Your task to perform on an android device: Open calendar and show me the third week of next month Image 0: 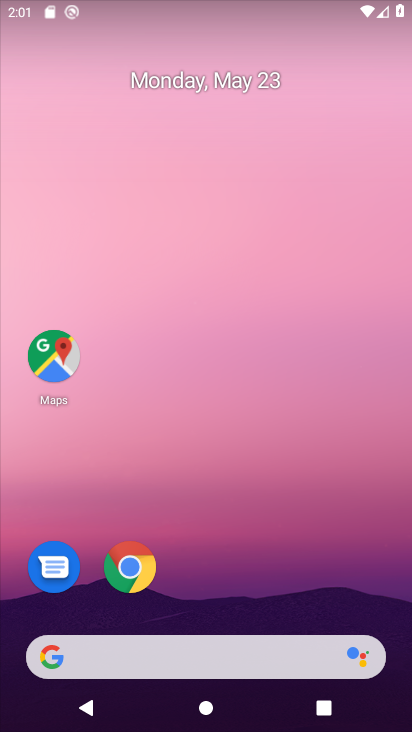
Step 0: drag from (209, 592) to (232, 149)
Your task to perform on an android device: Open calendar and show me the third week of next month Image 1: 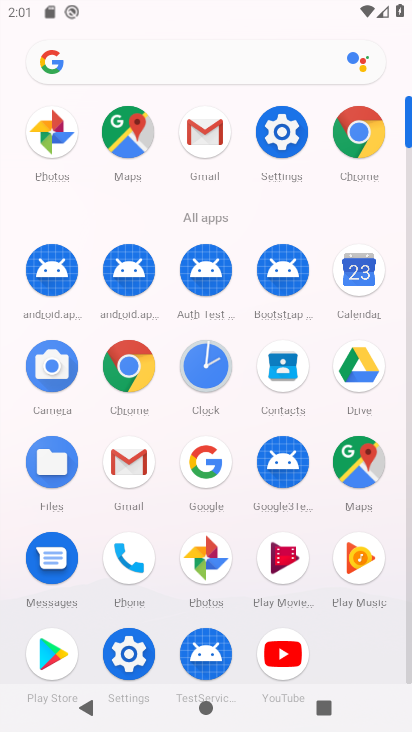
Step 1: click (342, 294)
Your task to perform on an android device: Open calendar and show me the third week of next month Image 2: 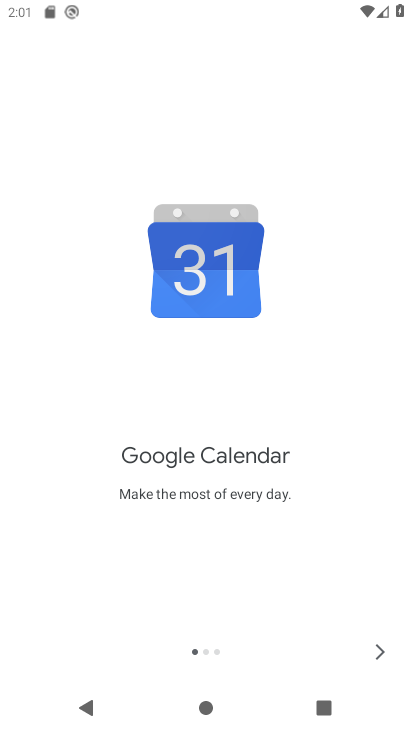
Step 2: click (374, 650)
Your task to perform on an android device: Open calendar and show me the third week of next month Image 3: 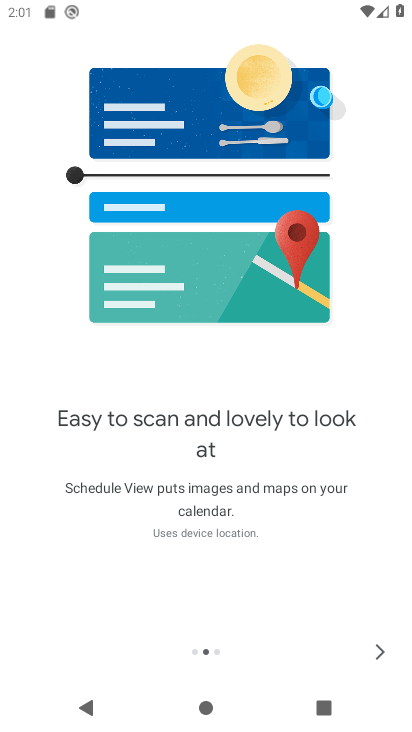
Step 3: click (374, 650)
Your task to perform on an android device: Open calendar and show me the third week of next month Image 4: 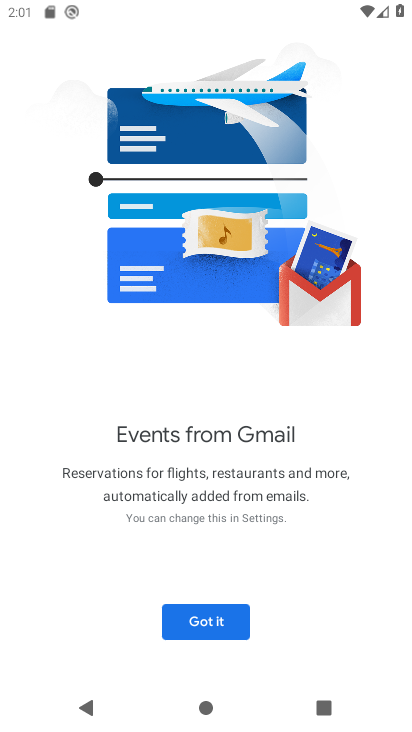
Step 4: click (241, 620)
Your task to perform on an android device: Open calendar and show me the third week of next month Image 5: 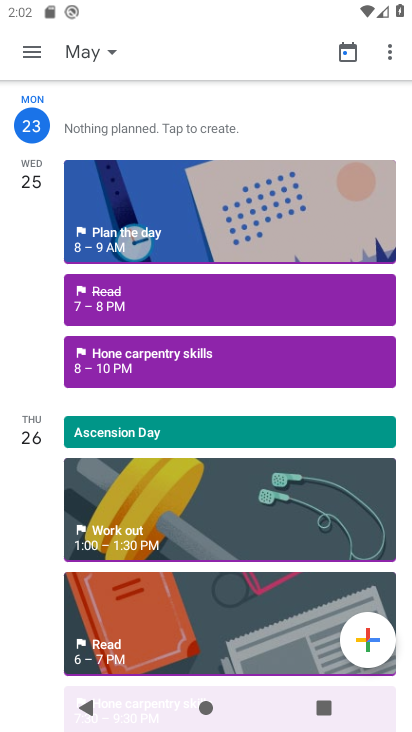
Step 5: click (107, 53)
Your task to perform on an android device: Open calendar and show me the third week of next month Image 6: 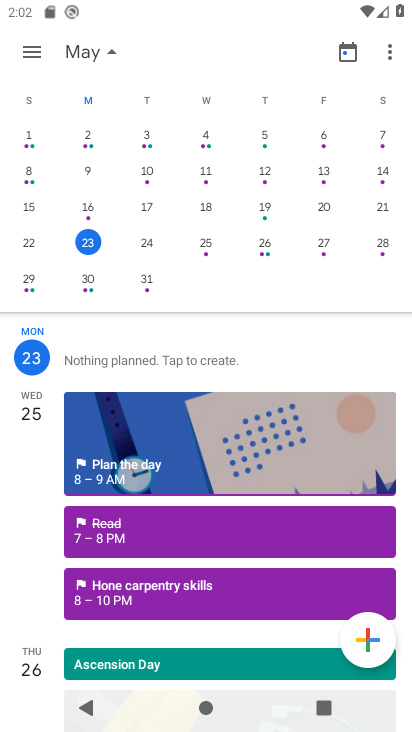
Step 6: drag from (329, 198) to (33, 180)
Your task to perform on an android device: Open calendar and show me the third week of next month Image 7: 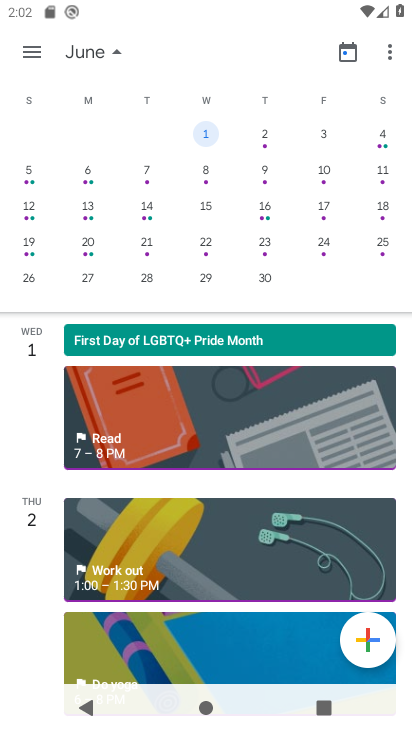
Step 7: click (34, 210)
Your task to perform on an android device: Open calendar and show me the third week of next month Image 8: 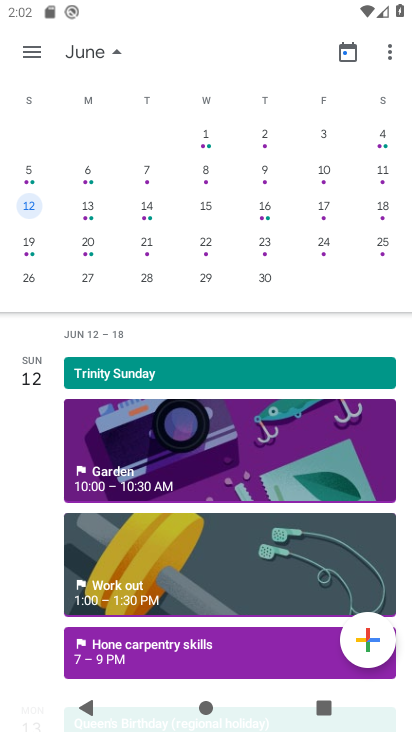
Step 8: task complete